Your task to perform on an android device: toggle sleep mode Image 0: 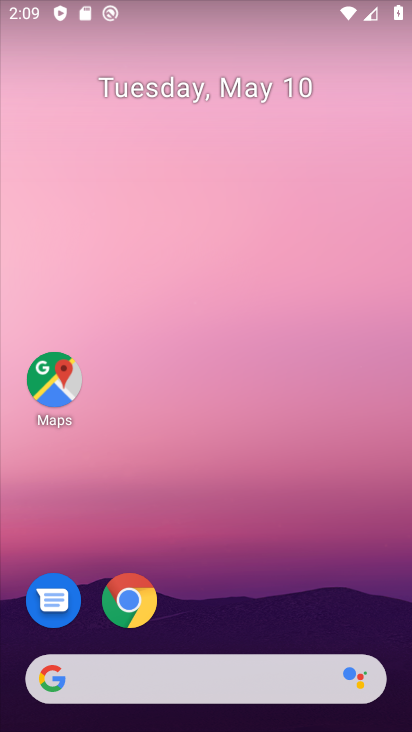
Step 0: drag from (238, 612) to (238, 279)
Your task to perform on an android device: toggle sleep mode Image 1: 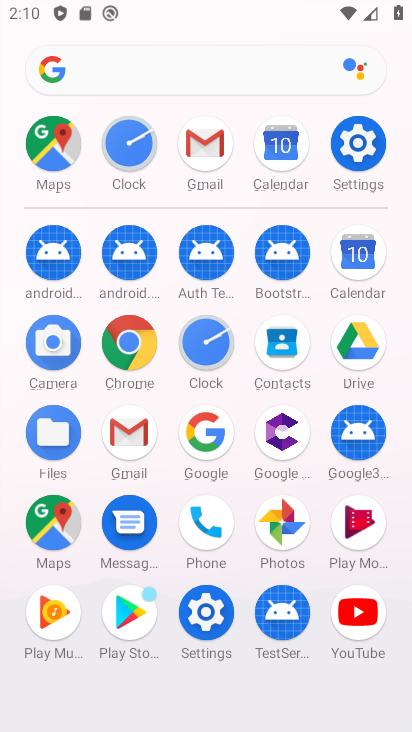
Step 1: click (362, 166)
Your task to perform on an android device: toggle sleep mode Image 2: 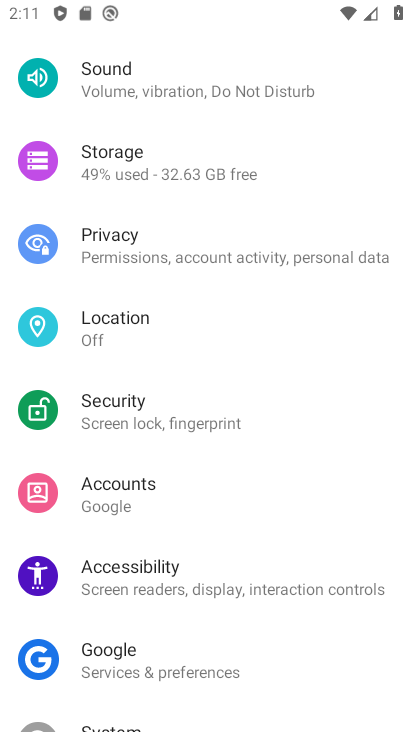
Step 2: drag from (131, 247) to (99, 506)
Your task to perform on an android device: toggle sleep mode Image 3: 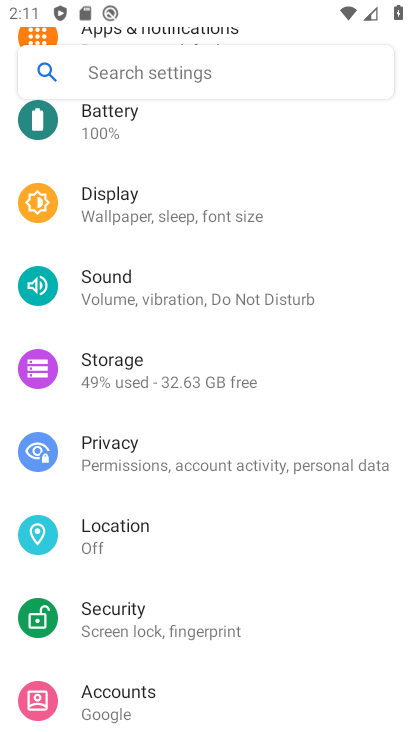
Step 3: click (117, 221)
Your task to perform on an android device: toggle sleep mode Image 4: 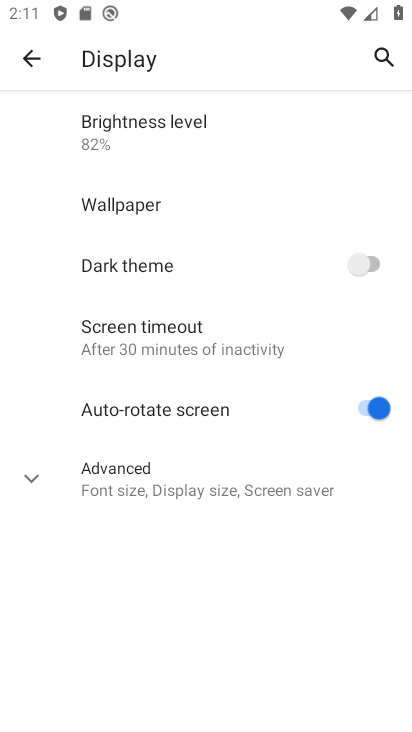
Step 4: click (160, 476)
Your task to perform on an android device: toggle sleep mode Image 5: 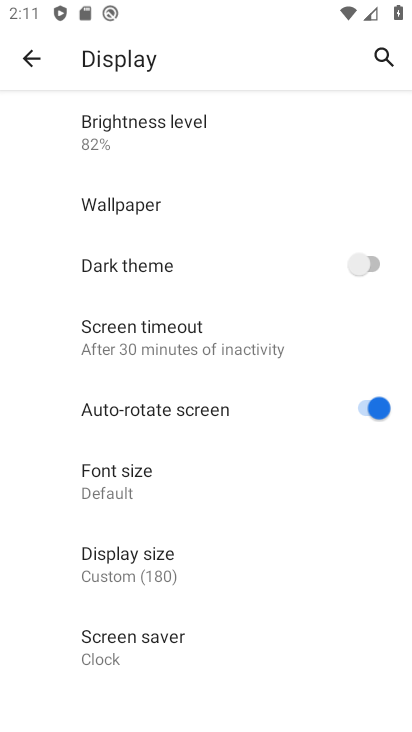
Step 5: task complete